Your task to perform on an android device: Open ESPN.com Image 0: 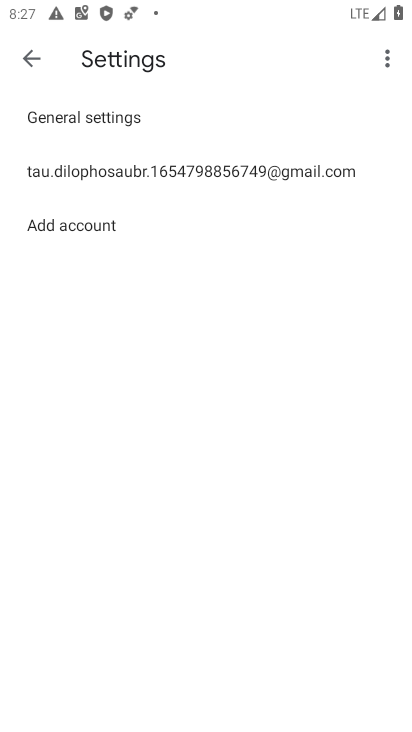
Step 0: press home button
Your task to perform on an android device: Open ESPN.com Image 1: 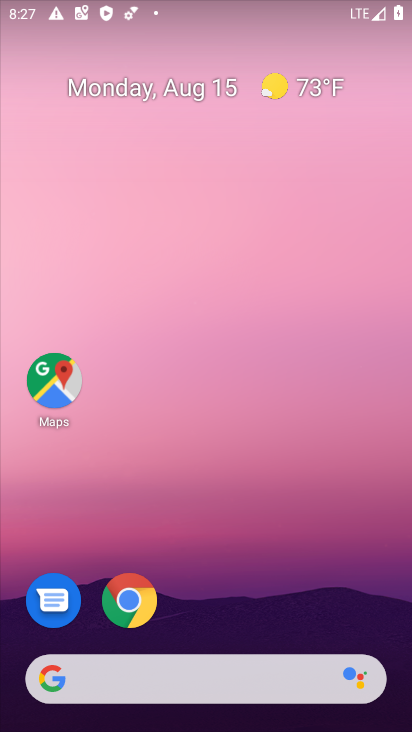
Step 1: click (124, 603)
Your task to perform on an android device: Open ESPN.com Image 2: 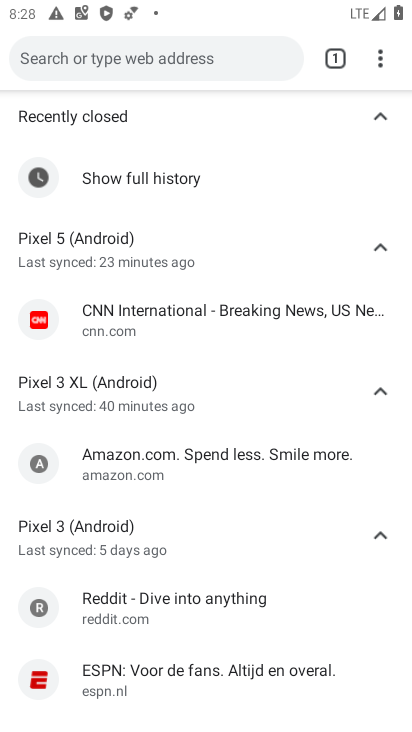
Step 2: click (378, 66)
Your task to perform on an android device: Open ESPN.com Image 3: 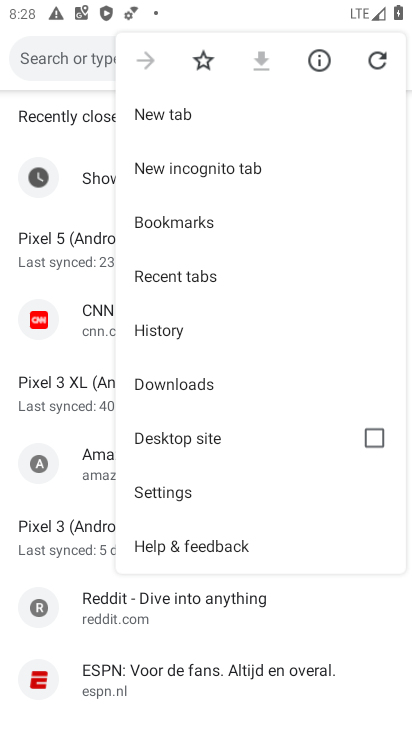
Step 3: click (176, 114)
Your task to perform on an android device: Open ESPN.com Image 4: 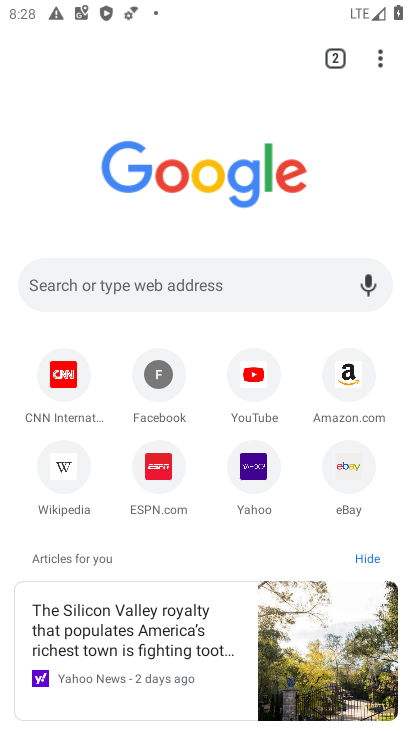
Step 4: click (154, 464)
Your task to perform on an android device: Open ESPN.com Image 5: 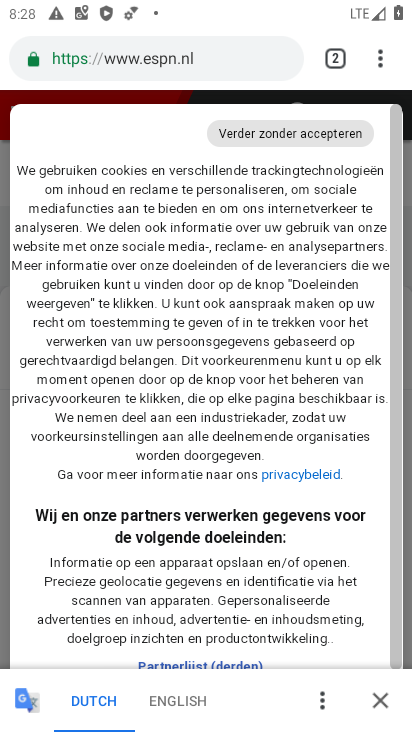
Step 5: drag from (247, 614) to (247, 245)
Your task to perform on an android device: Open ESPN.com Image 6: 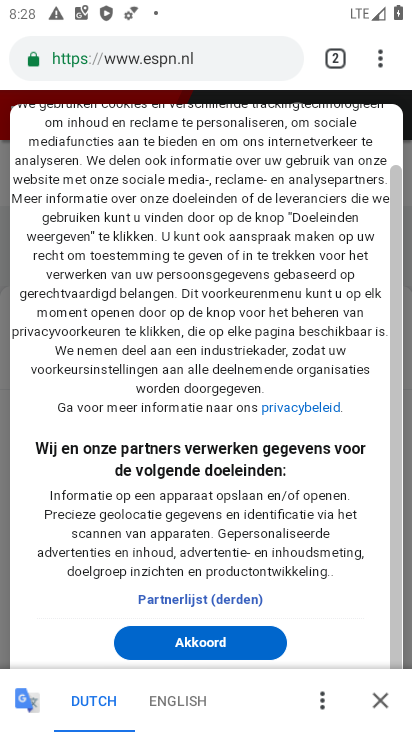
Step 6: click (193, 634)
Your task to perform on an android device: Open ESPN.com Image 7: 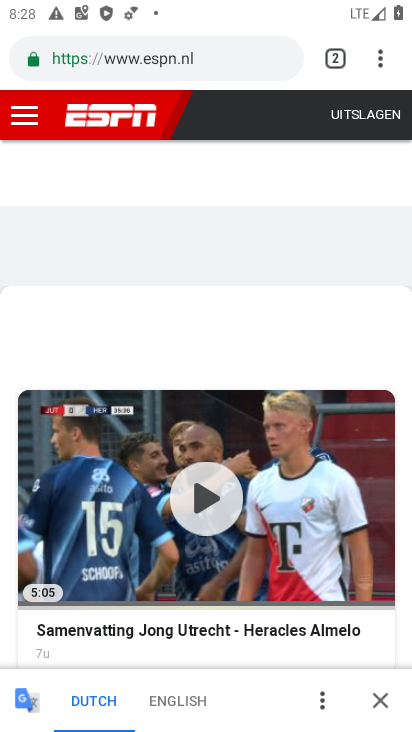
Step 7: task complete